Your task to perform on an android device: turn pop-ups off in chrome Image 0: 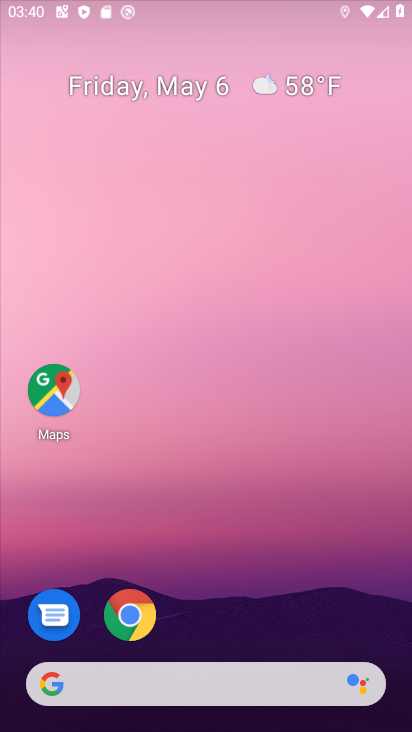
Step 0: drag from (322, 543) to (175, 4)
Your task to perform on an android device: turn pop-ups off in chrome Image 1: 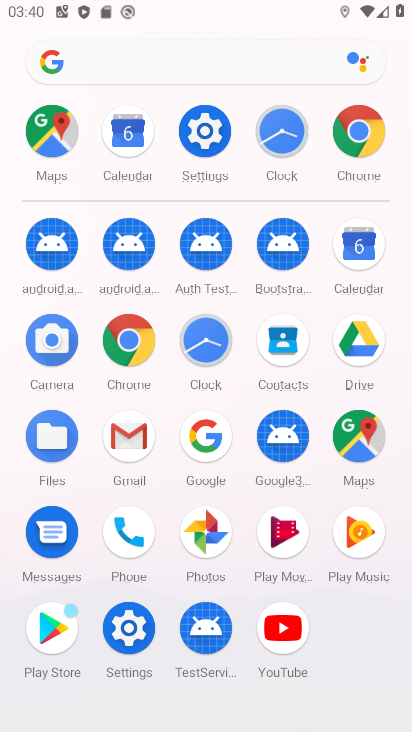
Step 1: click (357, 137)
Your task to perform on an android device: turn pop-ups off in chrome Image 2: 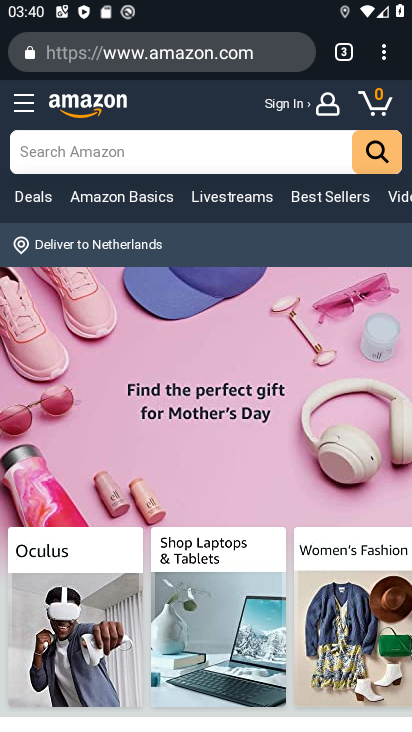
Step 2: press home button
Your task to perform on an android device: turn pop-ups off in chrome Image 3: 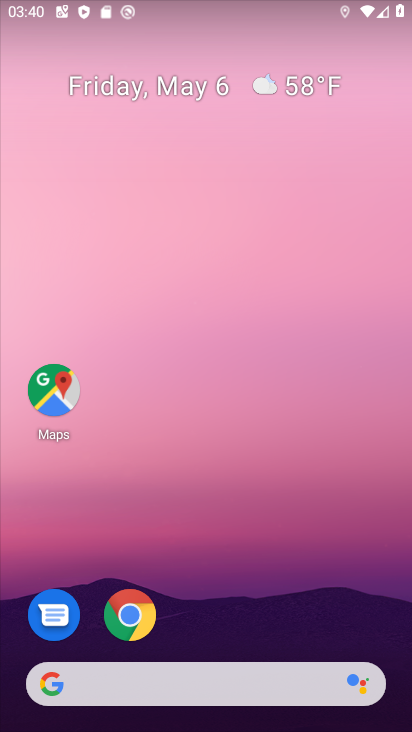
Step 3: drag from (124, 612) to (235, 452)
Your task to perform on an android device: turn pop-ups off in chrome Image 4: 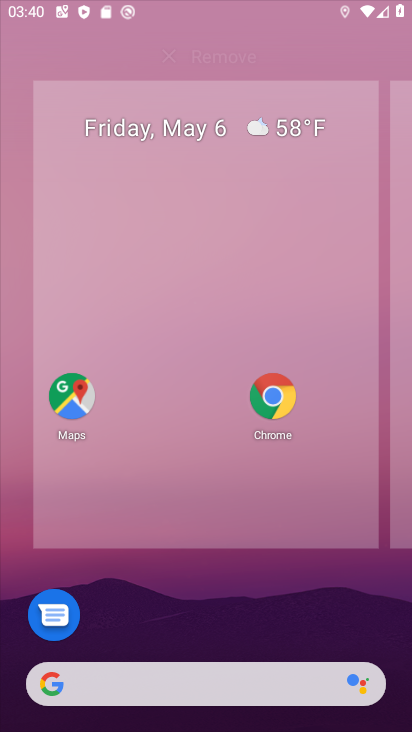
Step 4: click (235, 452)
Your task to perform on an android device: turn pop-ups off in chrome Image 5: 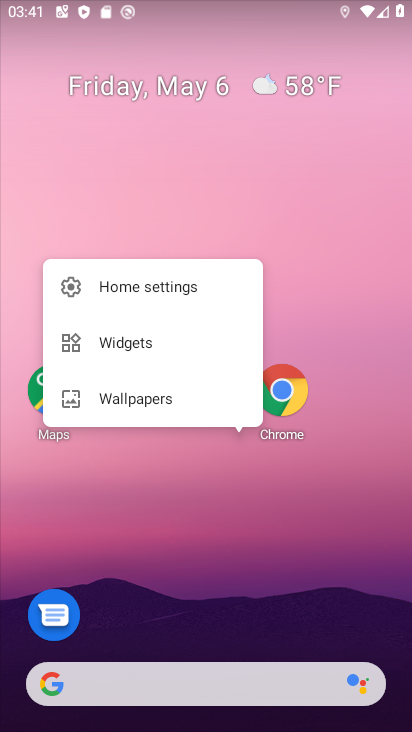
Step 5: click (290, 205)
Your task to perform on an android device: turn pop-ups off in chrome Image 6: 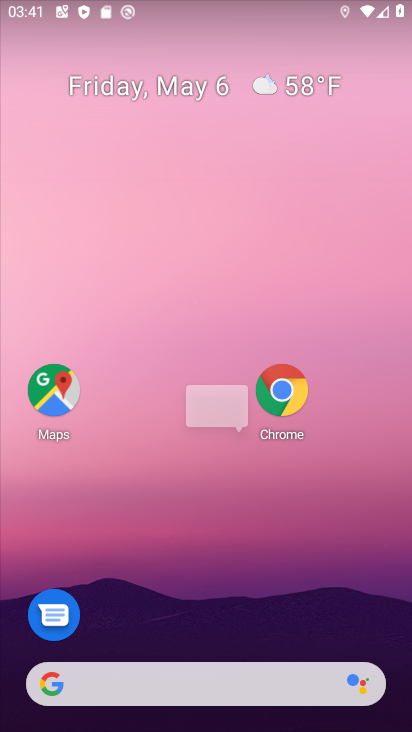
Step 6: click (287, 211)
Your task to perform on an android device: turn pop-ups off in chrome Image 7: 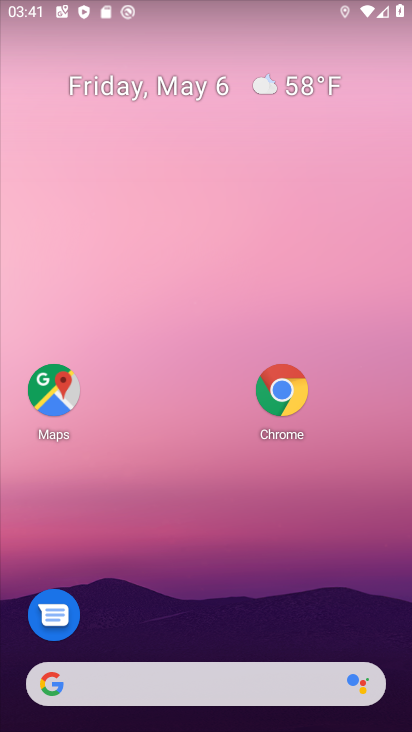
Step 7: drag from (281, 393) to (232, 216)
Your task to perform on an android device: turn pop-ups off in chrome Image 8: 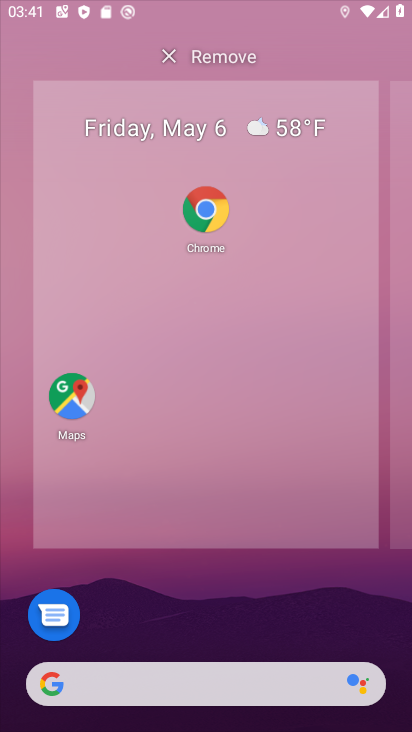
Step 8: click (232, 216)
Your task to perform on an android device: turn pop-ups off in chrome Image 9: 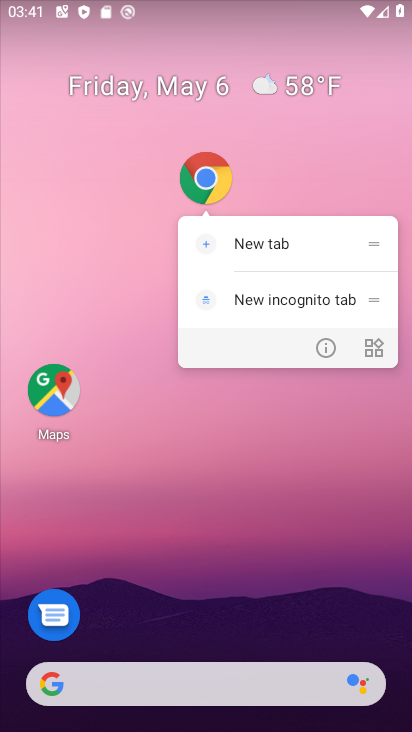
Step 9: click (324, 347)
Your task to perform on an android device: turn pop-ups off in chrome Image 10: 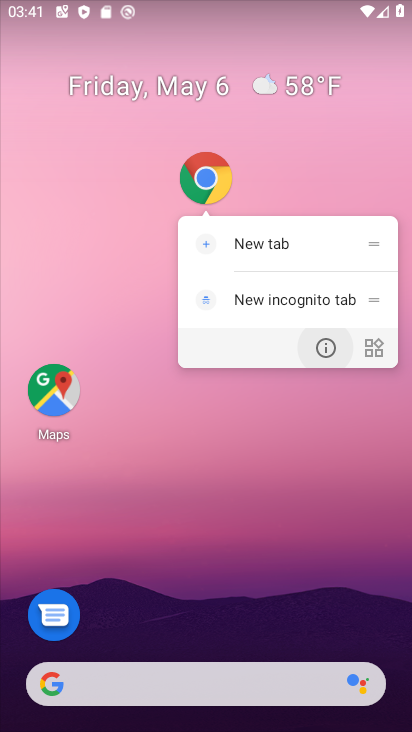
Step 10: click (322, 350)
Your task to perform on an android device: turn pop-ups off in chrome Image 11: 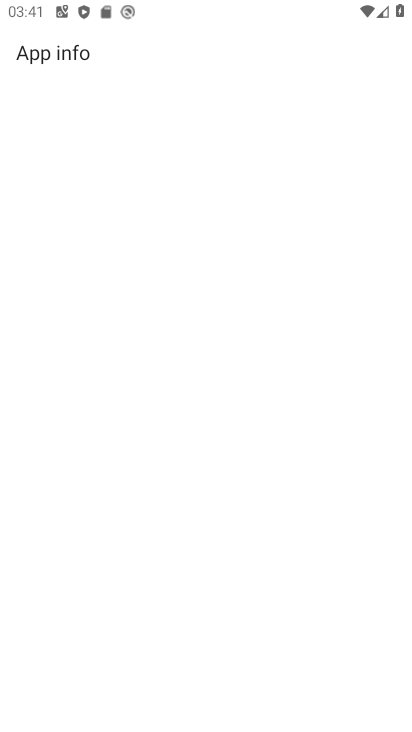
Step 11: click (320, 351)
Your task to perform on an android device: turn pop-ups off in chrome Image 12: 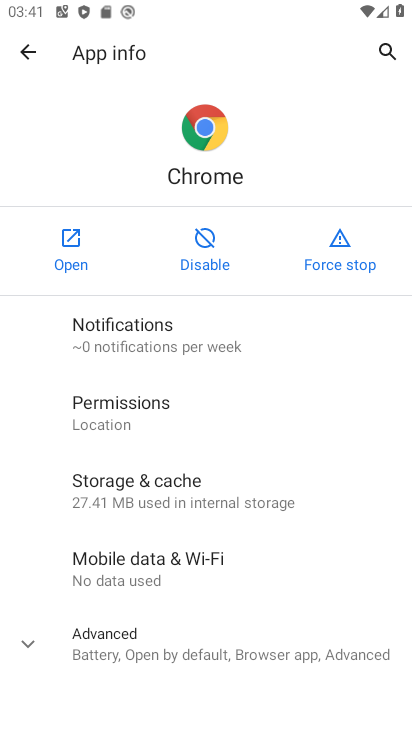
Step 12: drag from (173, 621) to (114, 230)
Your task to perform on an android device: turn pop-ups off in chrome Image 13: 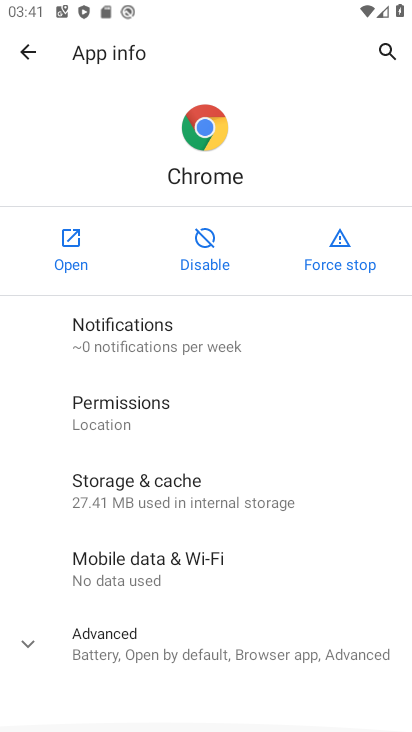
Step 13: drag from (203, 592) to (168, 199)
Your task to perform on an android device: turn pop-ups off in chrome Image 14: 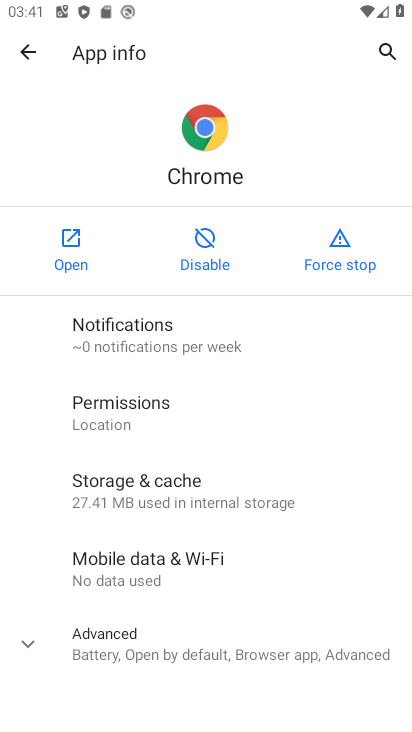
Step 14: click (109, 641)
Your task to perform on an android device: turn pop-ups off in chrome Image 15: 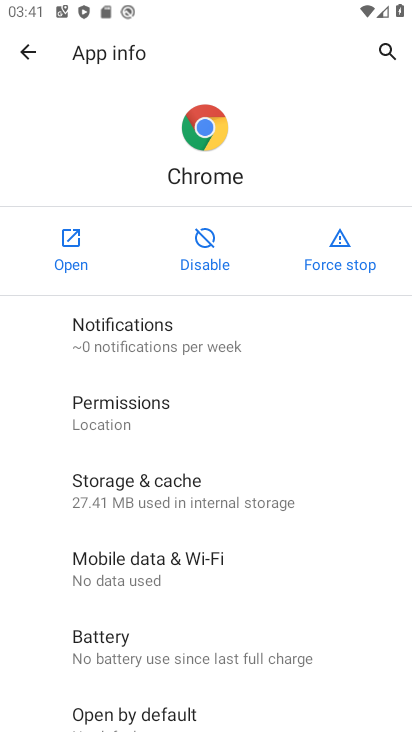
Step 15: drag from (161, 571) to (104, 328)
Your task to perform on an android device: turn pop-ups off in chrome Image 16: 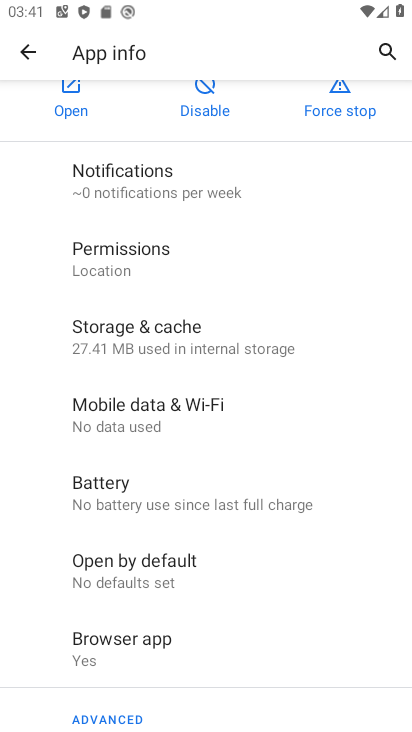
Step 16: drag from (150, 571) to (89, 237)
Your task to perform on an android device: turn pop-ups off in chrome Image 17: 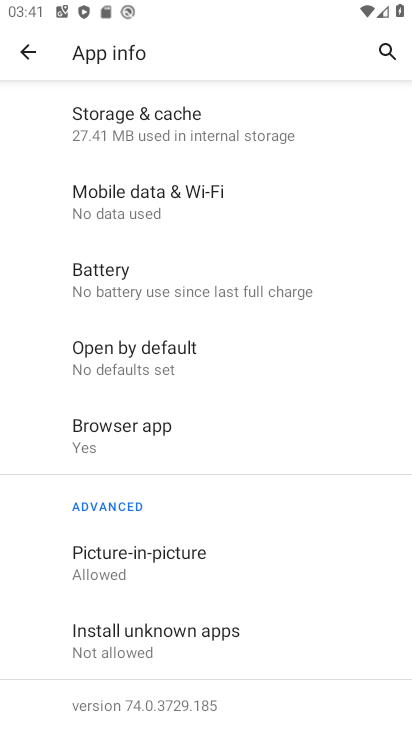
Step 17: click (122, 555)
Your task to perform on an android device: turn pop-ups off in chrome Image 18: 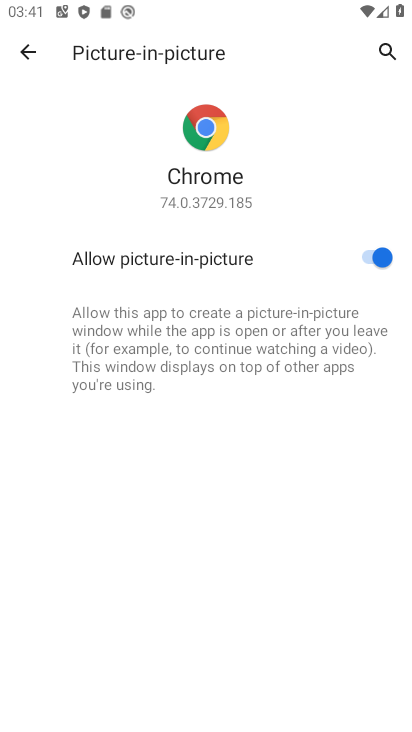
Step 18: click (23, 55)
Your task to perform on an android device: turn pop-ups off in chrome Image 19: 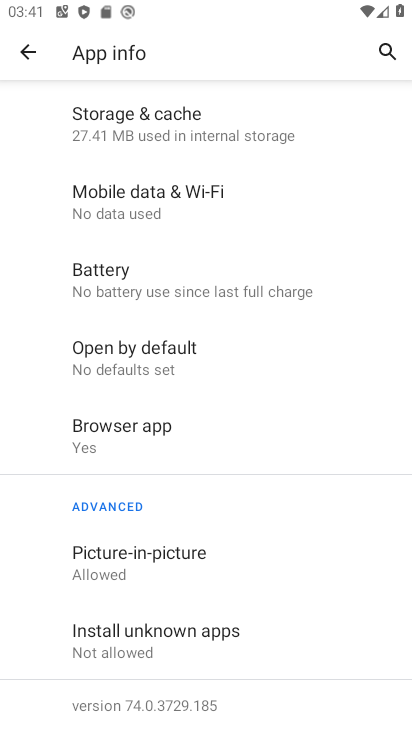
Step 19: click (28, 42)
Your task to perform on an android device: turn pop-ups off in chrome Image 20: 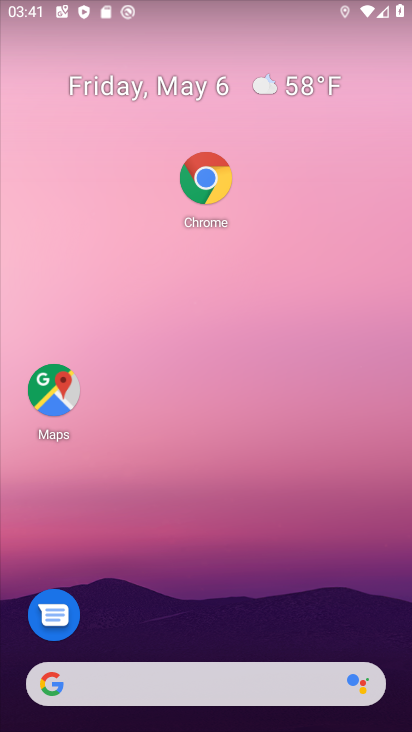
Step 20: click (199, 183)
Your task to perform on an android device: turn pop-ups off in chrome Image 21: 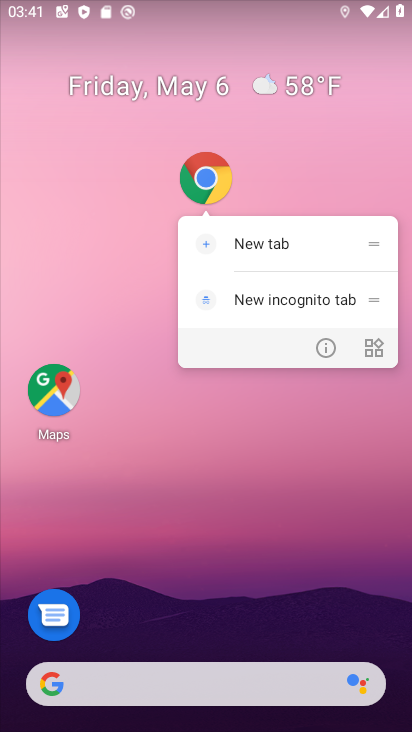
Step 21: click (238, 159)
Your task to perform on an android device: turn pop-ups off in chrome Image 22: 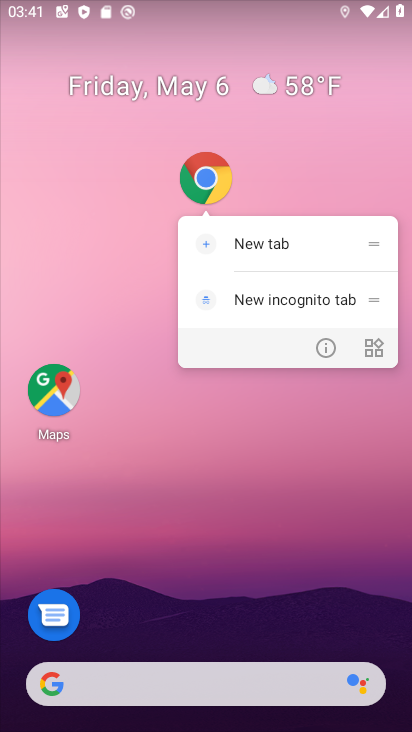
Step 22: click (301, 498)
Your task to perform on an android device: turn pop-ups off in chrome Image 23: 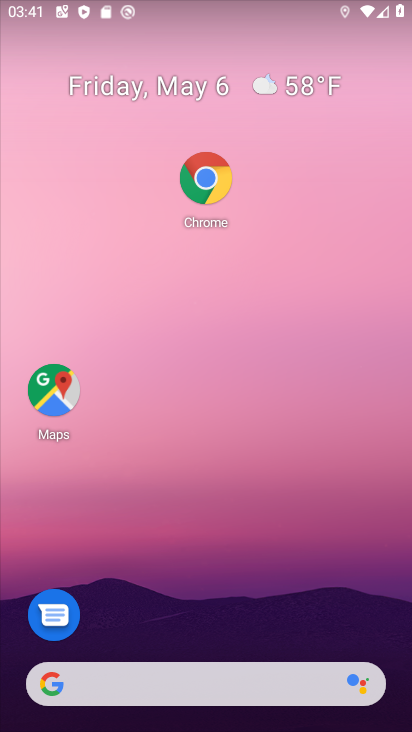
Step 23: drag from (288, 555) to (33, 70)
Your task to perform on an android device: turn pop-ups off in chrome Image 24: 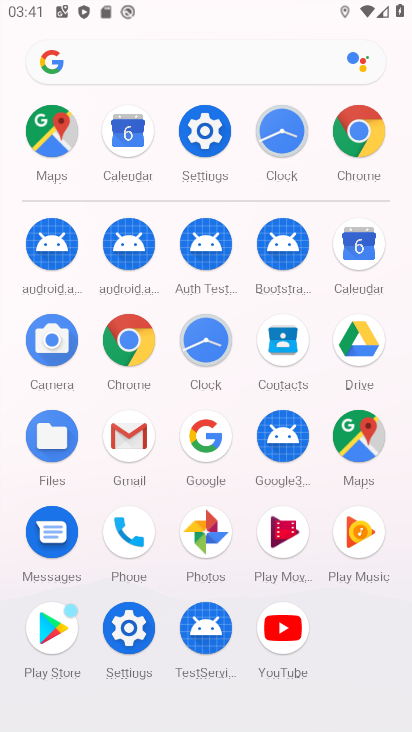
Step 24: click (363, 123)
Your task to perform on an android device: turn pop-ups off in chrome Image 25: 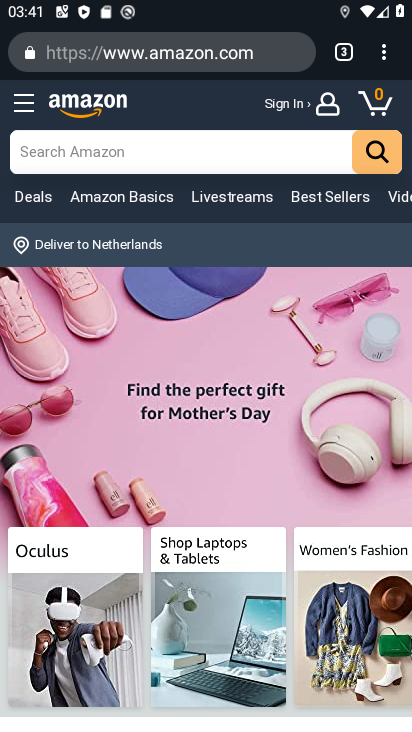
Step 25: drag from (382, 55) to (181, 629)
Your task to perform on an android device: turn pop-ups off in chrome Image 26: 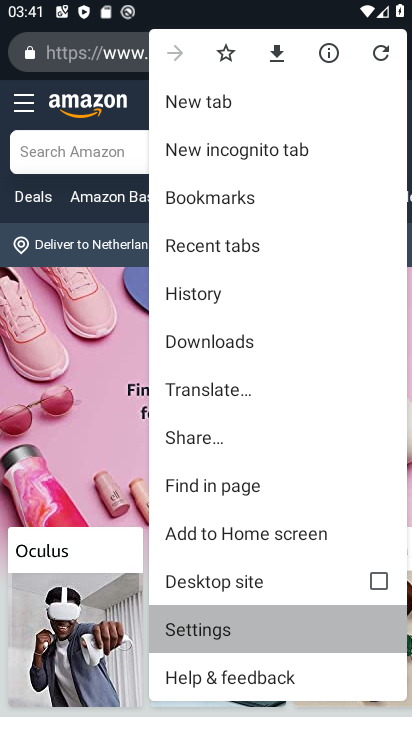
Step 26: click (184, 627)
Your task to perform on an android device: turn pop-ups off in chrome Image 27: 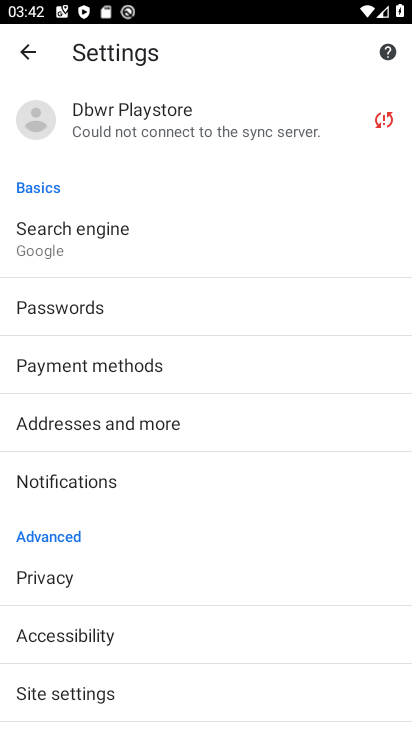
Step 27: click (56, 693)
Your task to perform on an android device: turn pop-ups off in chrome Image 28: 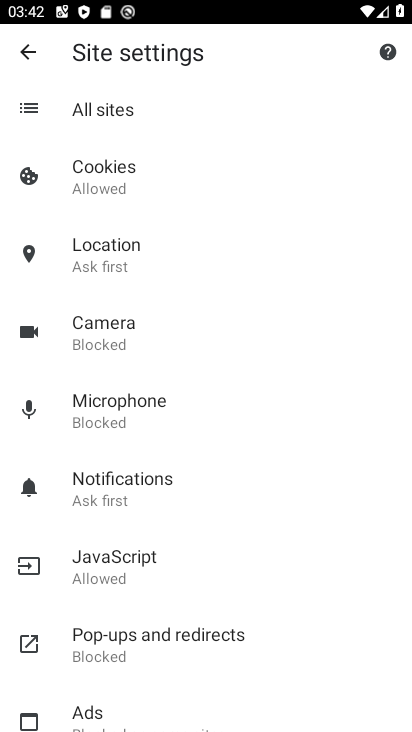
Step 28: click (124, 630)
Your task to perform on an android device: turn pop-ups off in chrome Image 29: 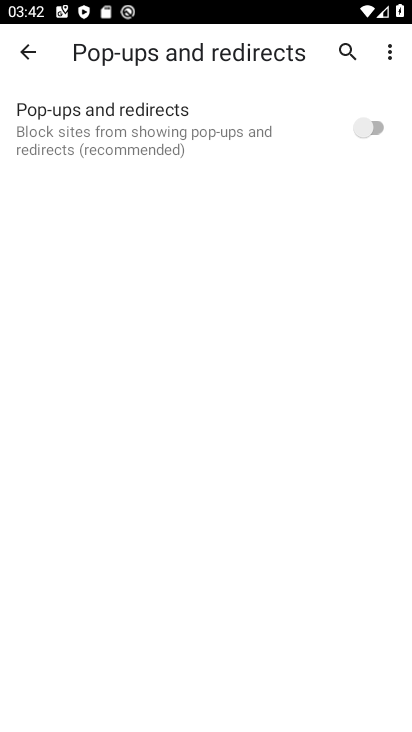
Step 29: click (366, 123)
Your task to perform on an android device: turn pop-ups off in chrome Image 30: 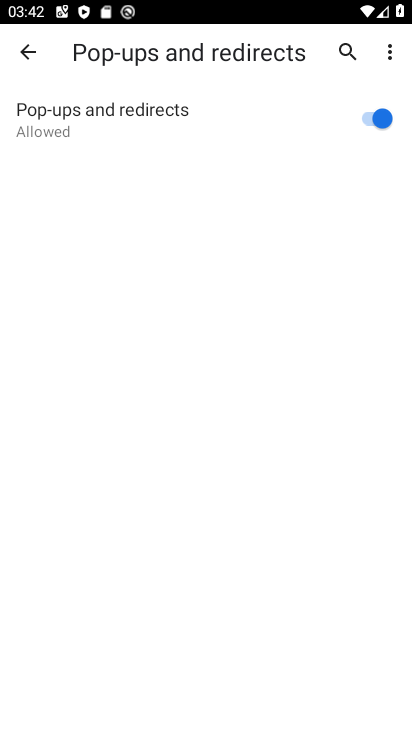
Step 30: task complete